Your task to perform on an android device: Open eBay Image 0: 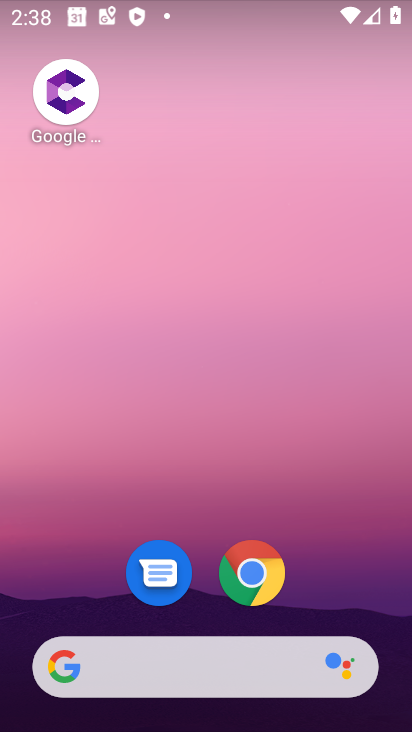
Step 0: click (250, 587)
Your task to perform on an android device: Open eBay Image 1: 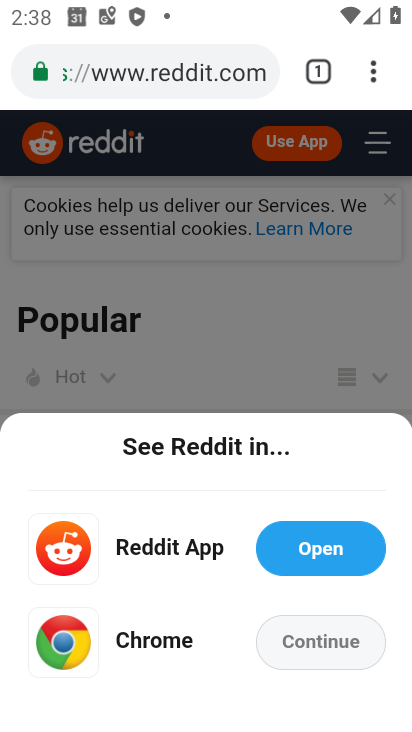
Step 1: click (211, 47)
Your task to perform on an android device: Open eBay Image 2: 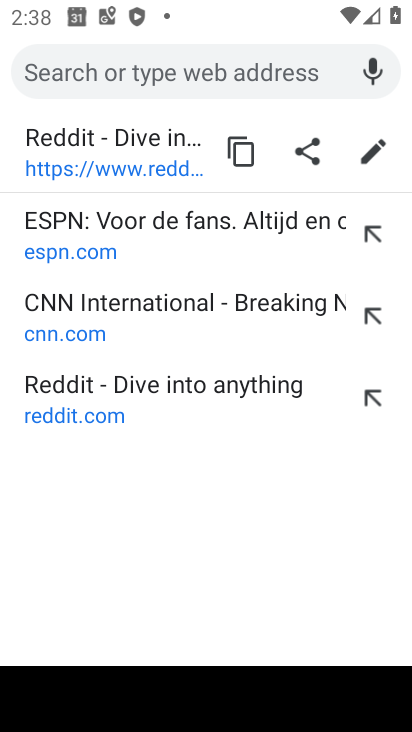
Step 2: type "ebay"
Your task to perform on an android device: Open eBay Image 3: 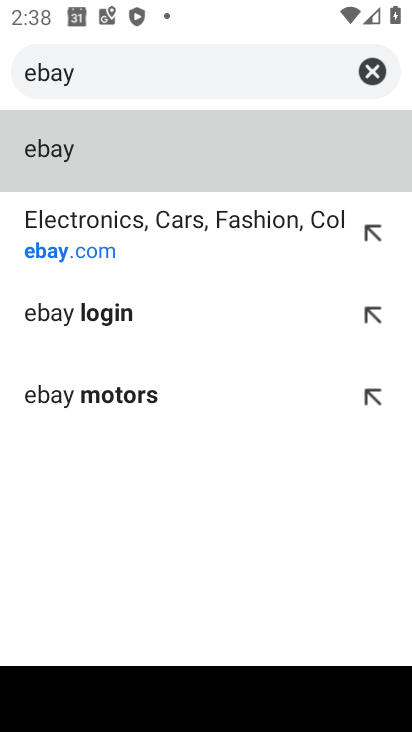
Step 3: click (68, 147)
Your task to perform on an android device: Open eBay Image 4: 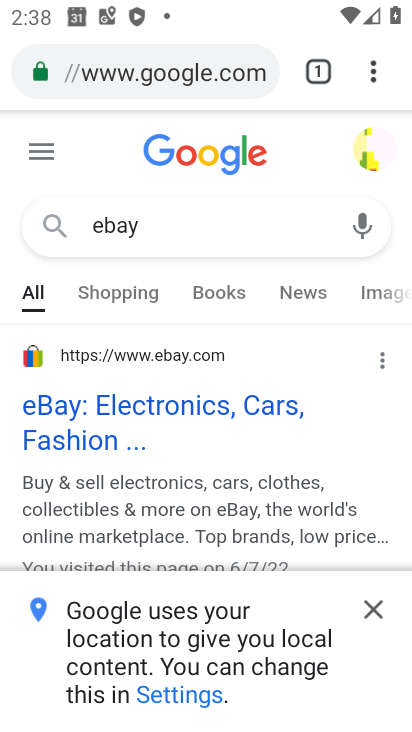
Step 4: click (97, 412)
Your task to perform on an android device: Open eBay Image 5: 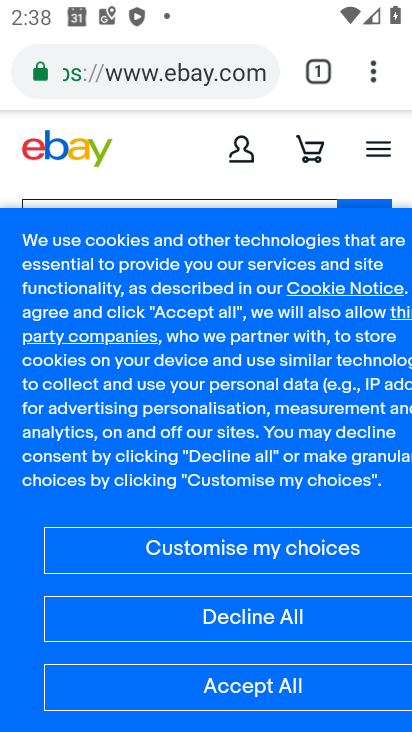
Step 5: task complete